Your task to perform on an android device: Search for Italian restaurants on Maps Image 0: 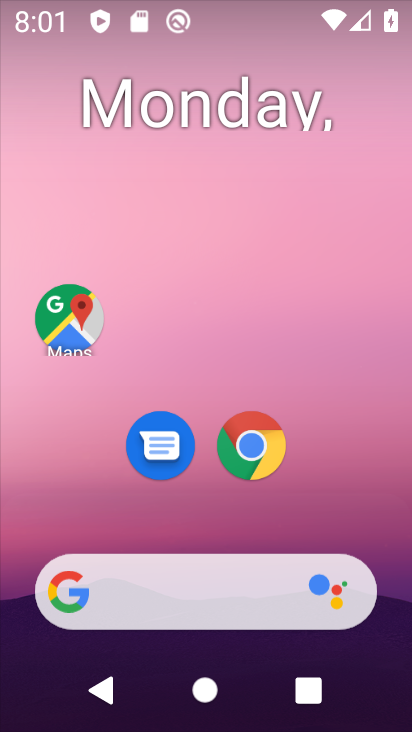
Step 0: drag from (194, 567) to (290, 1)
Your task to perform on an android device: Search for Italian restaurants on Maps Image 1: 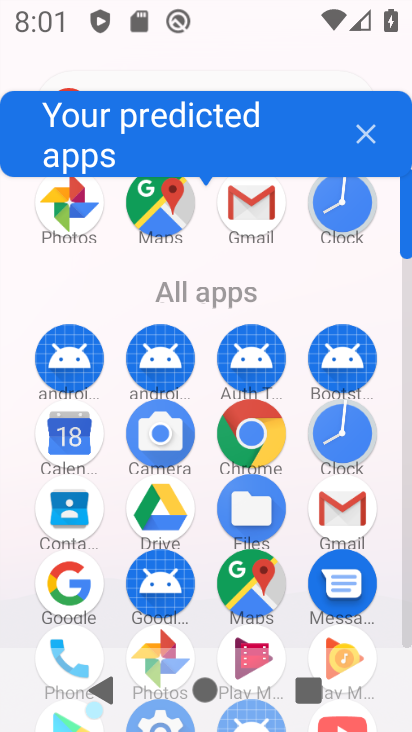
Step 1: drag from (242, 605) to (329, 366)
Your task to perform on an android device: Search for Italian restaurants on Maps Image 2: 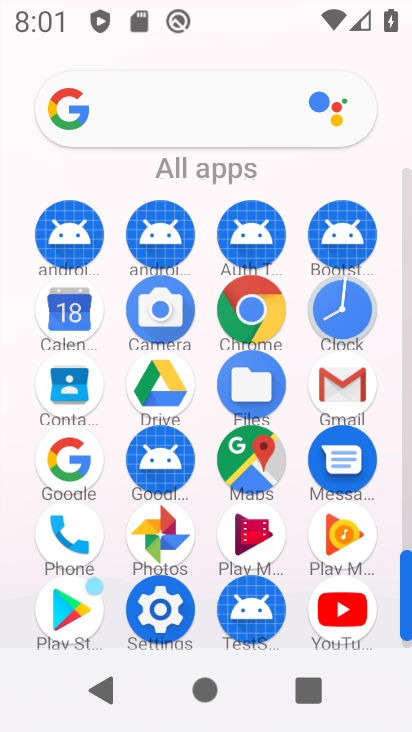
Step 2: click (245, 467)
Your task to perform on an android device: Search for Italian restaurants on Maps Image 3: 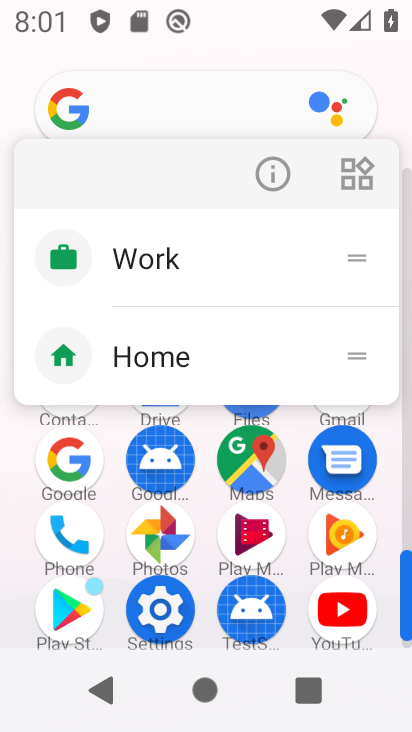
Step 3: click (271, 480)
Your task to perform on an android device: Search for Italian restaurants on Maps Image 4: 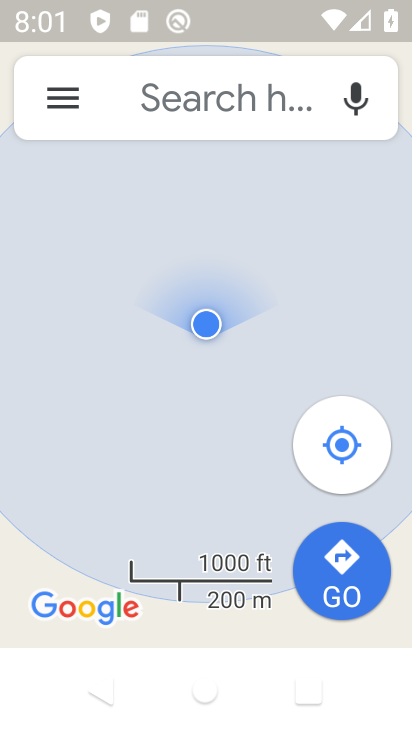
Step 4: click (225, 96)
Your task to perform on an android device: Search for Italian restaurants on Maps Image 5: 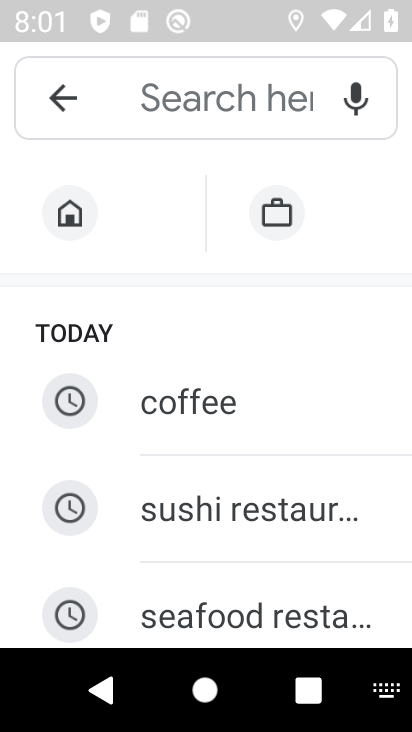
Step 5: type "Italian restaurants"
Your task to perform on an android device: Search for Italian restaurants on Maps Image 6: 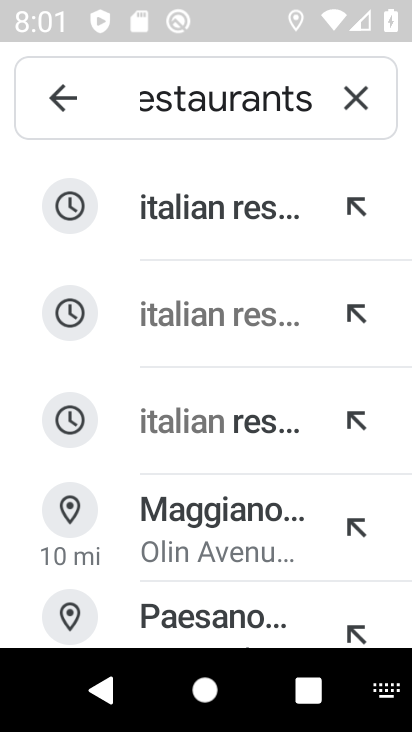
Step 6: click (218, 218)
Your task to perform on an android device: Search for Italian restaurants on Maps Image 7: 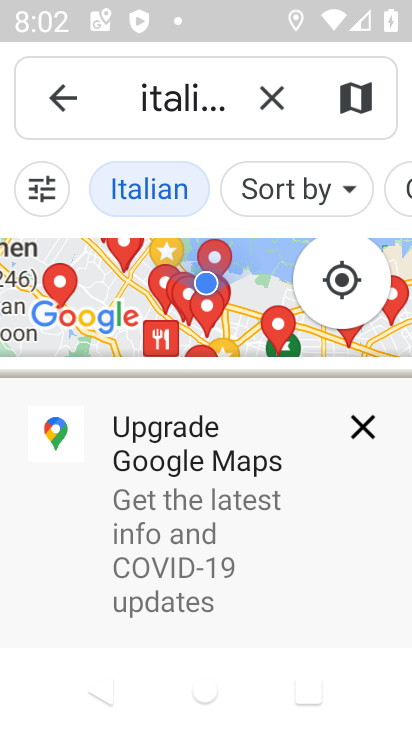
Step 7: click (372, 426)
Your task to perform on an android device: Search for Italian restaurants on Maps Image 8: 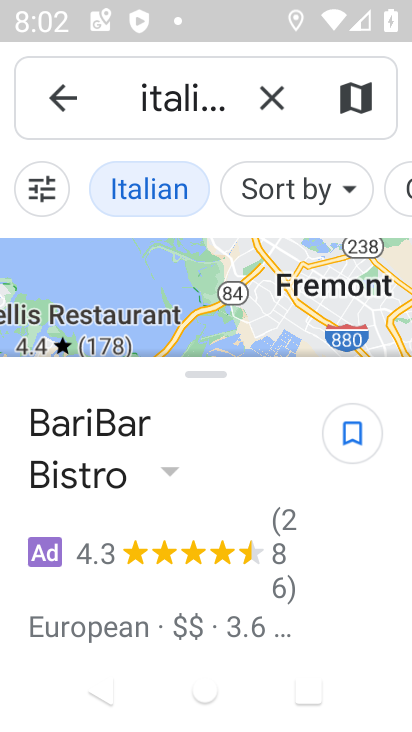
Step 8: task complete